Your task to perform on an android device: toggle translation in the chrome app Image 0: 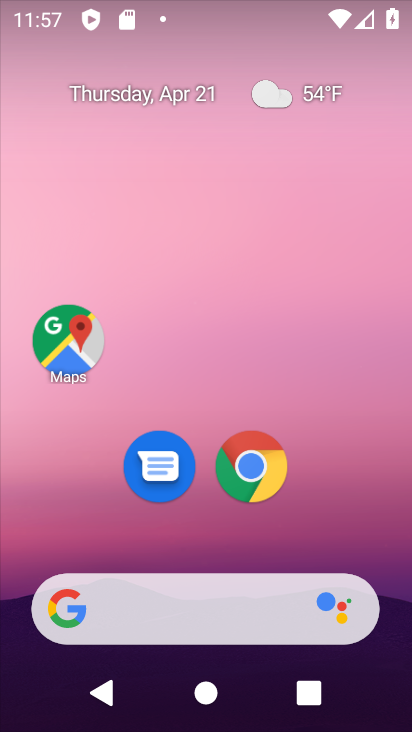
Step 0: click (252, 464)
Your task to perform on an android device: toggle translation in the chrome app Image 1: 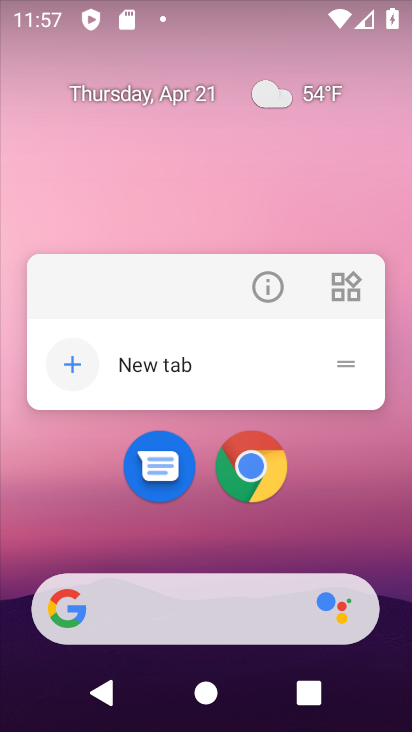
Step 1: click (252, 464)
Your task to perform on an android device: toggle translation in the chrome app Image 2: 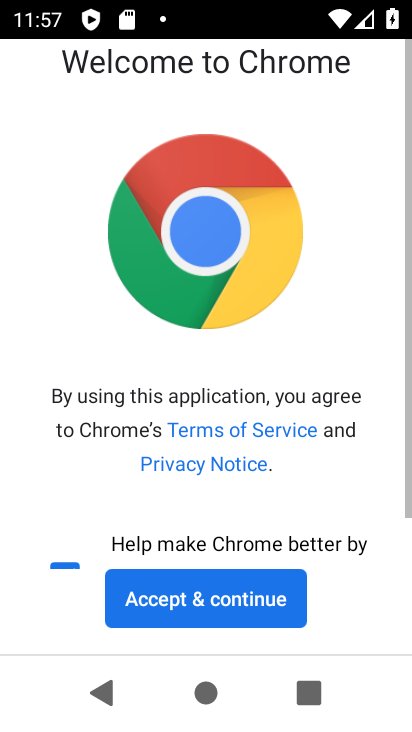
Step 2: click (224, 598)
Your task to perform on an android device: toggle translation in the chrome app Image 3: 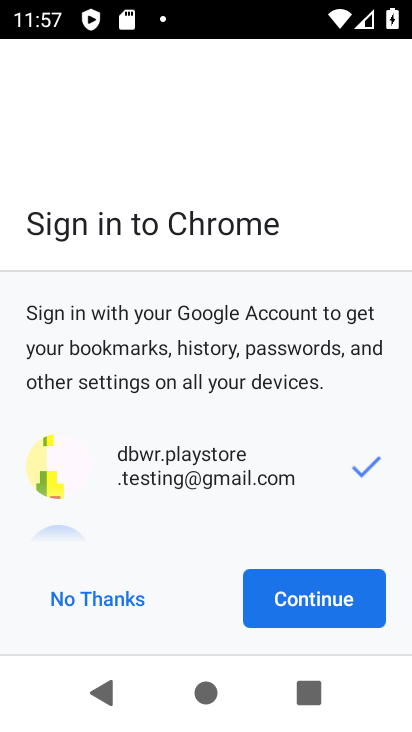
Step 3: click (305, 609)
Your task to perform on an android device: toggle translation in the chrome app Image 4: 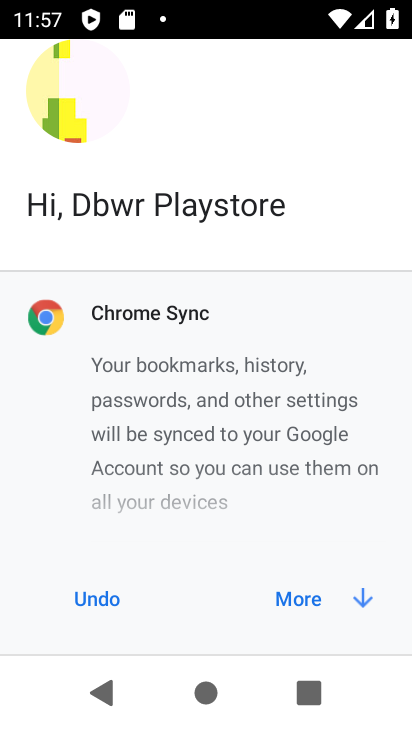
Step 4: click (306, 590)
Your task to perform on an android device: toggle translation in the chrome app Image 5: 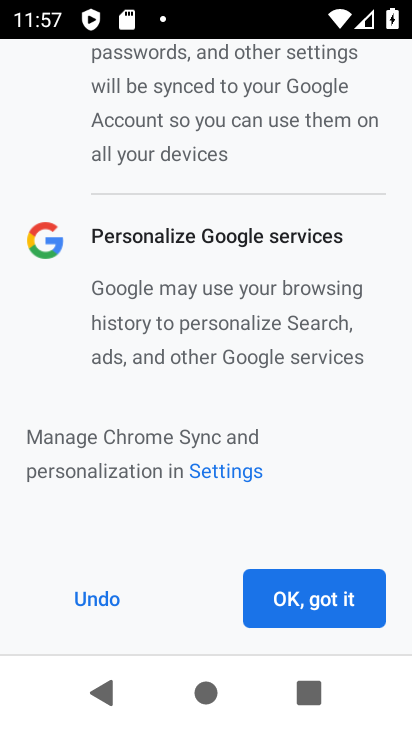
Step 5: click (301, 601)
Your task to perform on an android device: toggle translation in the chrome app Image 6: 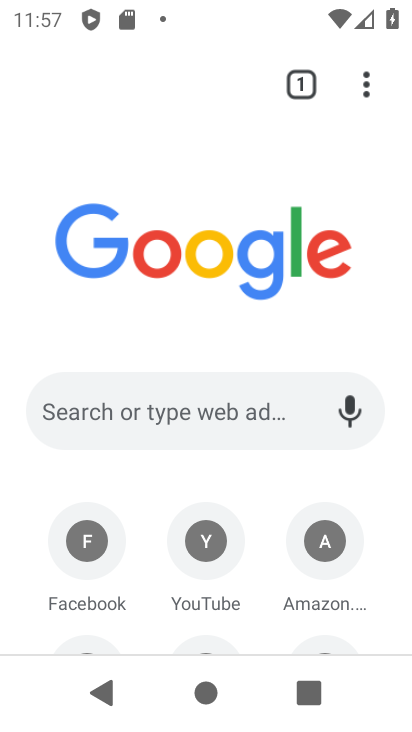
Step 6: drag from (364, 87) to (139, 503)
Your task to perform on an android device: toggle translation in the chrome app Image 7: 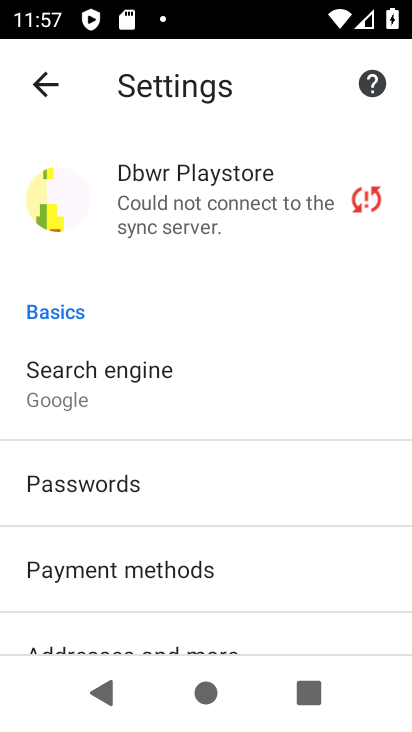
Step 7: drag from (289, 551) to (270, 94)
Your task to perform on an android device: toggle translation in the chrome app Image 8: 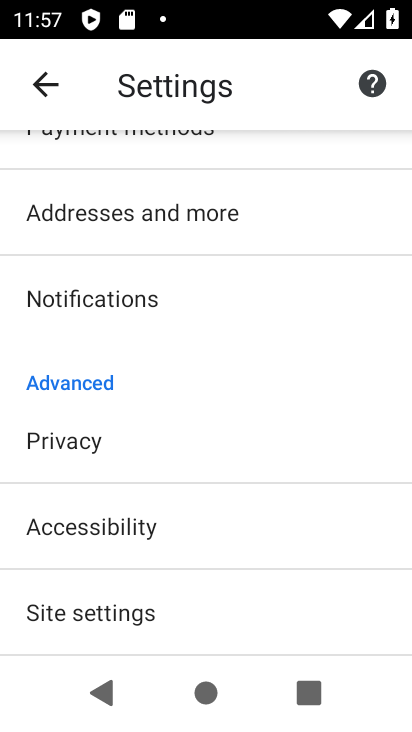
Step 8: drag from (171, 587) to (196, 321)
Your task to perform on an android device: toggle translation in the chrome app Image 9: 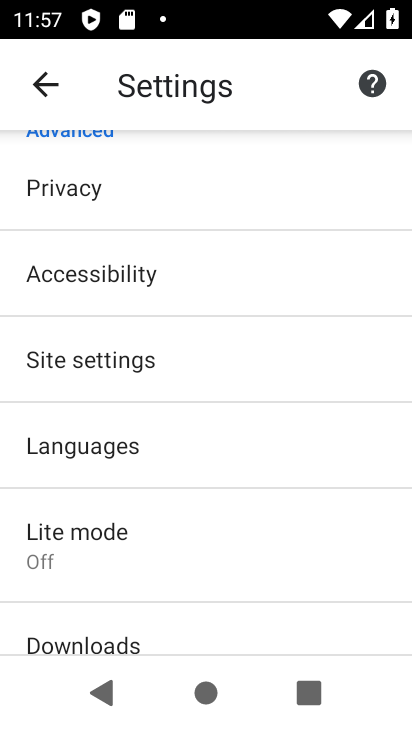
Step 9: click (115, 449)
Your task to perform on an android device: toggle translation in the chrome app Image 10: 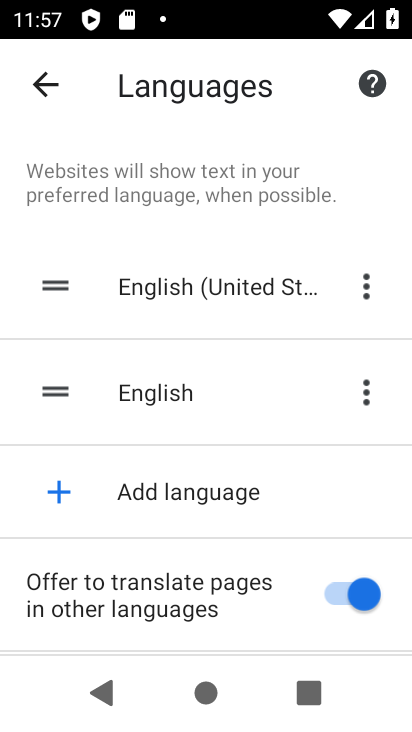
Step 10: click (339, 595)
Your task to perform on an android device: toggle translation in the chrome app Image 11: 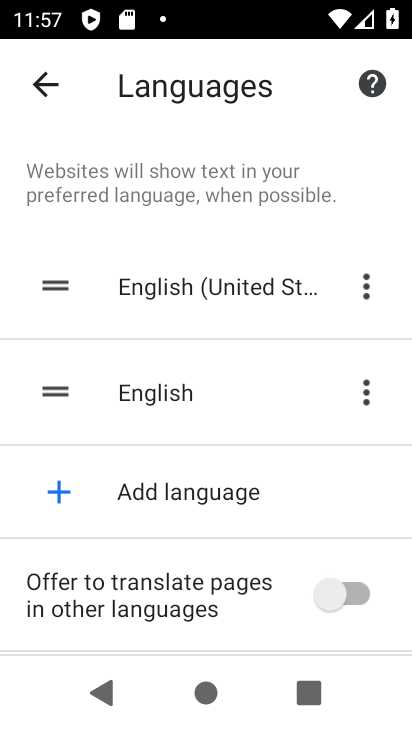
Step 11: task complete